Your task to perform on an android device: See recent photos Image 0: 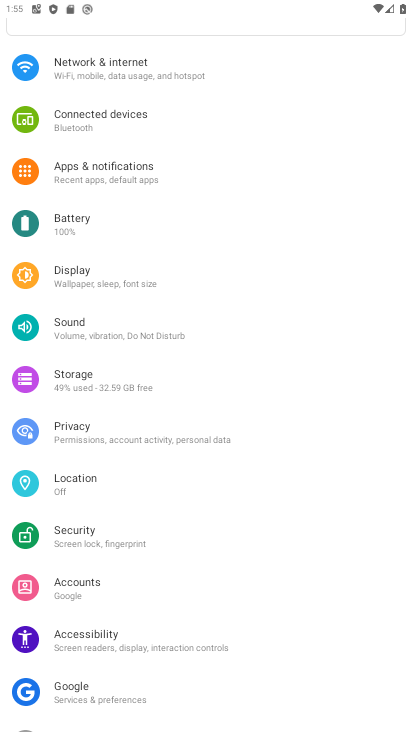
Step 0: press home button
Your task to perform on an android device: See recent photos Image 1: 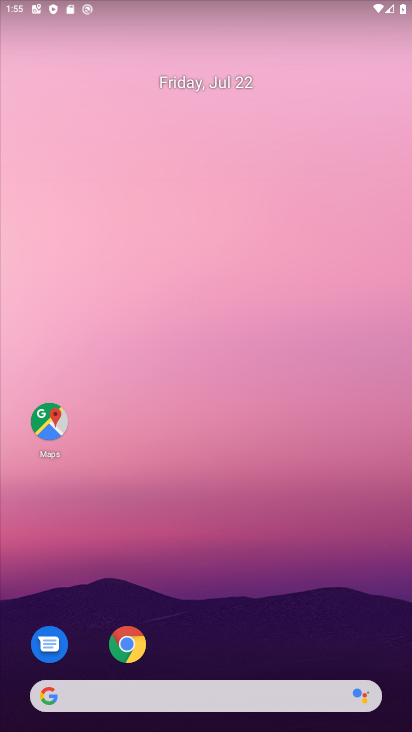
Step 1: drag from (171, 634) to (190, 240)
Your task to perform on an android device: See recent photos Image 2: 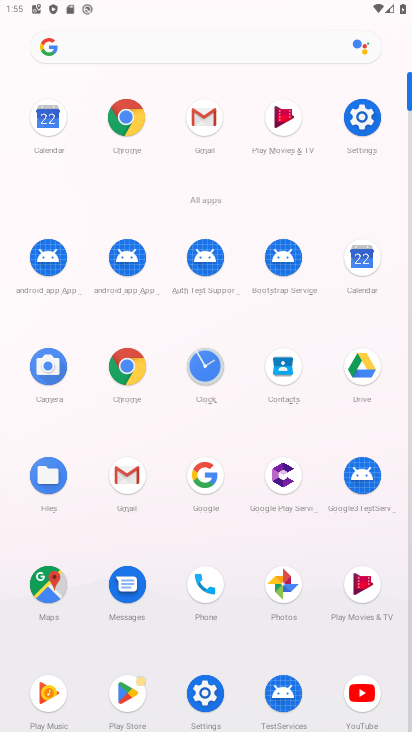
Step 2: click (273, 575)
Your task to perform on an android device: See recent photos Image 3: 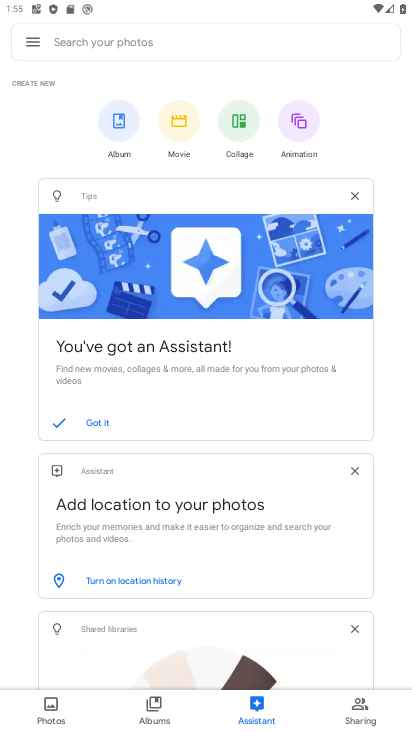
Step 3: click (163, 699)
Your task to perform on an android device: See recent photos Image 4: 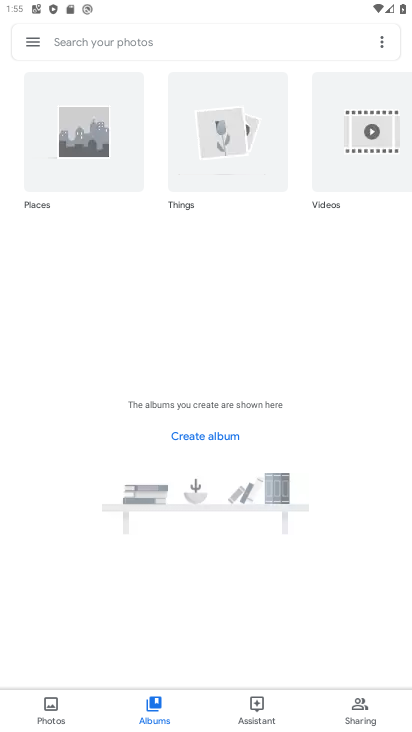
Step 4: click (73, 138)
Your task to perform on an android device: See recent photos Image 5: 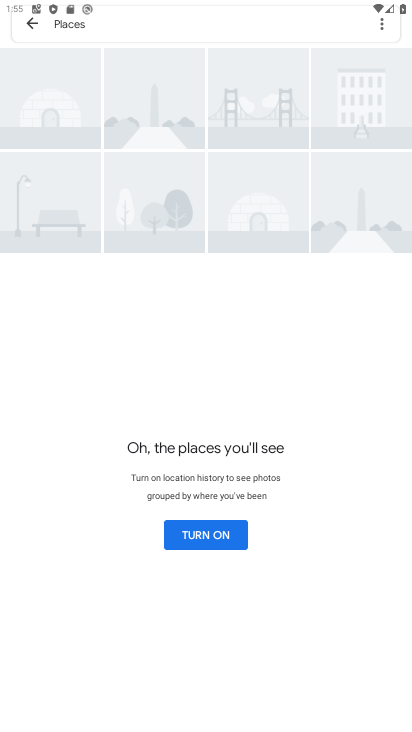
Step 5: click (222, 534)
Your task to perform on an android device: See recent photos Image 6: 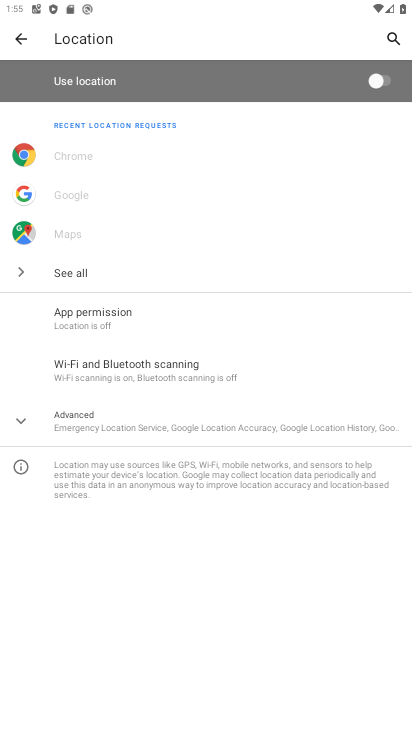
Step 6: click (16, 38)
Your task to perform on an android device: See recent photos Image 7: 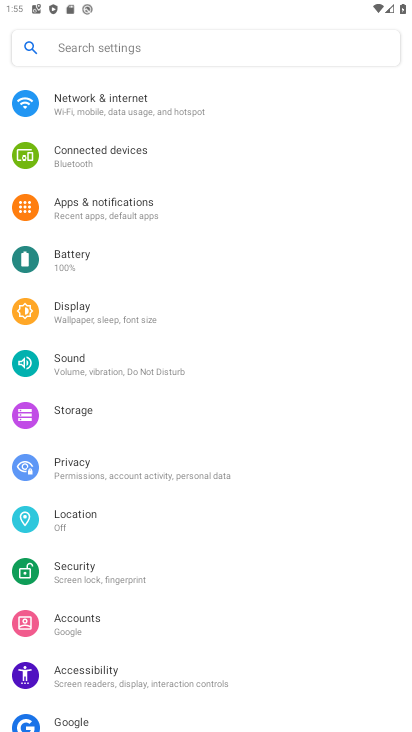
Step 7: task complete